Your task to perform on an android device: empty trash in google photos Image 0: 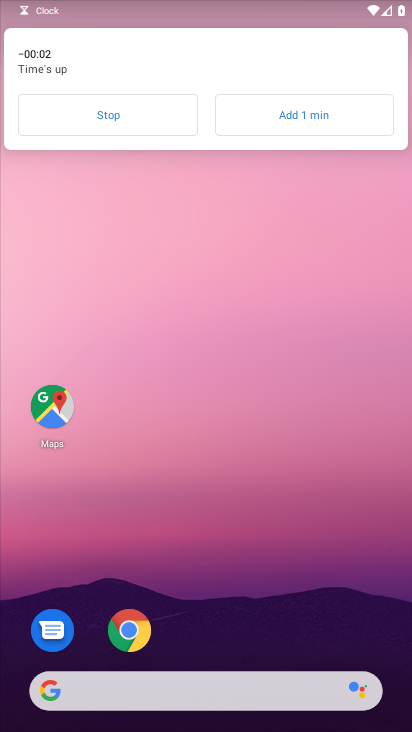
Step 0: click (69, 114)
Your task to perform on an android device: empty trash in google photos Image 1: 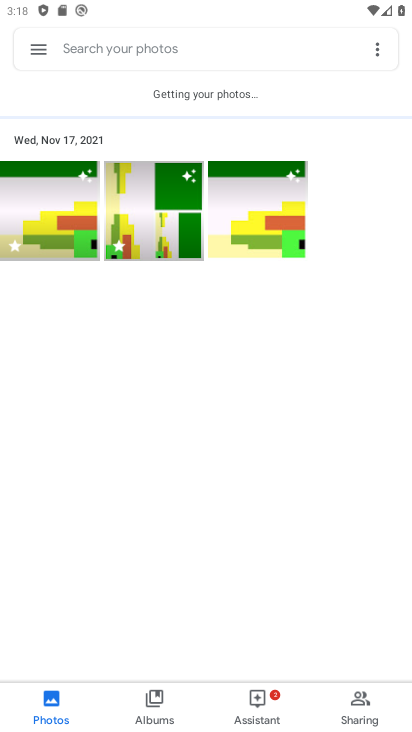
Step 1: click (46, 52)
Your task to perform on an android device: empty trash in google photos Image 2: 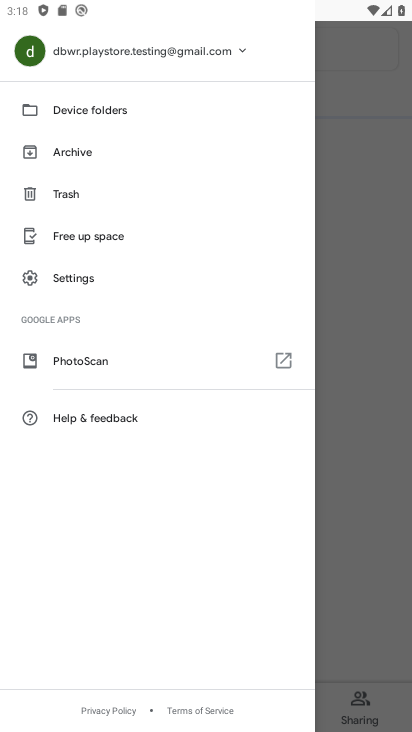
Step 2: click (73, 188)
Your task to perform on an android device: empty trash in google photos Image 3: 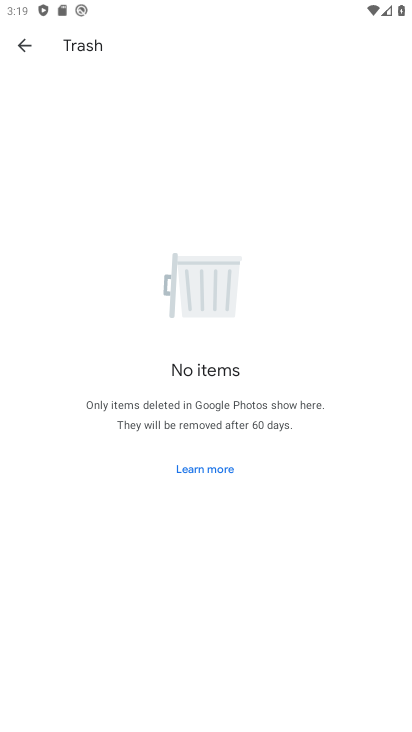
Step 3: task complete